Your task to perform on an android device: delete browsing data in the chrome app Image 0: 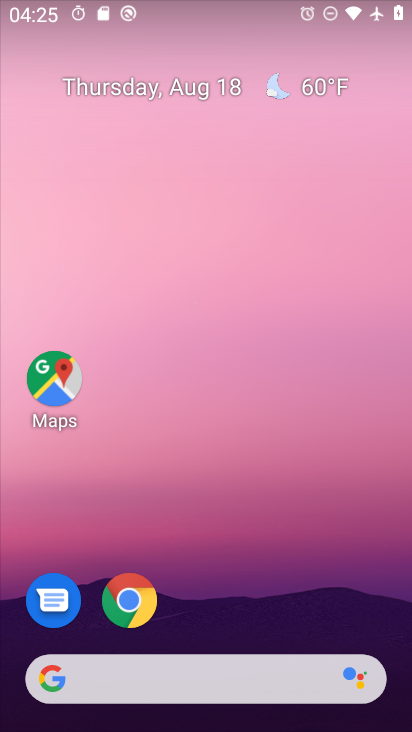
Step 0: press home button
Your task to perform on an android device: delete browsing data in the chrome app Image 1: 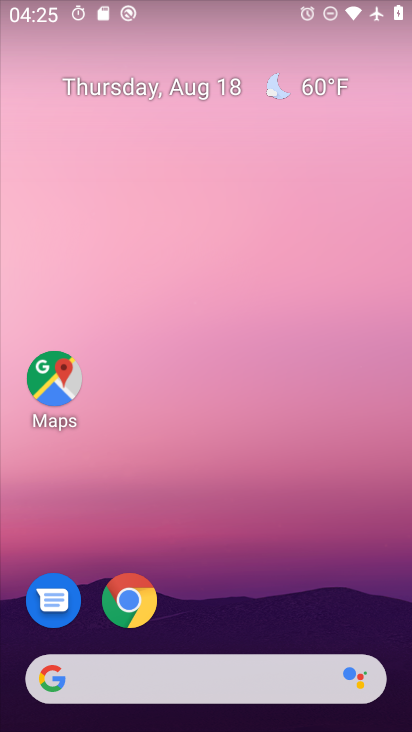
Step 1: click (122, 603)
Your task to perform on an android device: delete browsing data in the chrome app Image 2: 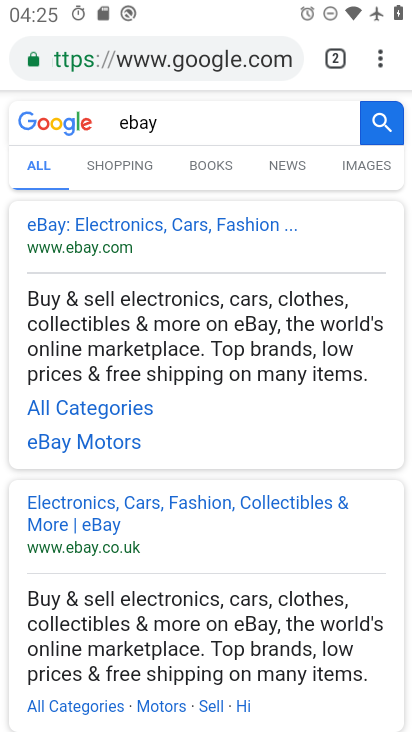
Step 2: drag from (389, 54) to (189, 647)
Your task to perform on an android device: delete browsing data in the chrome app Image 3: 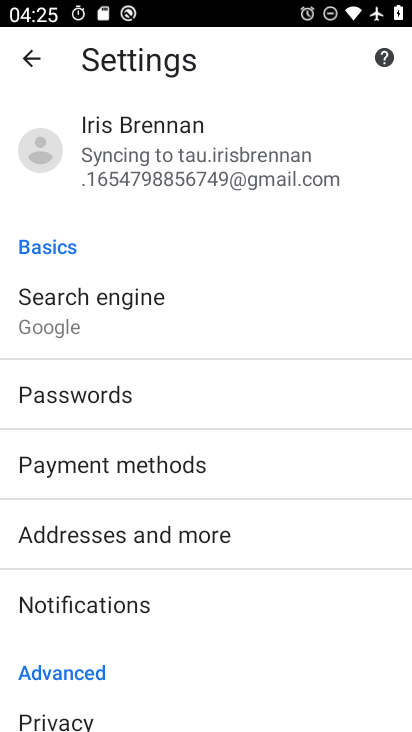
Step 3: drag from (230, 647) to (233, 186)
Your task to perform on an android device: delete browsing data in the chrome app Image 4: 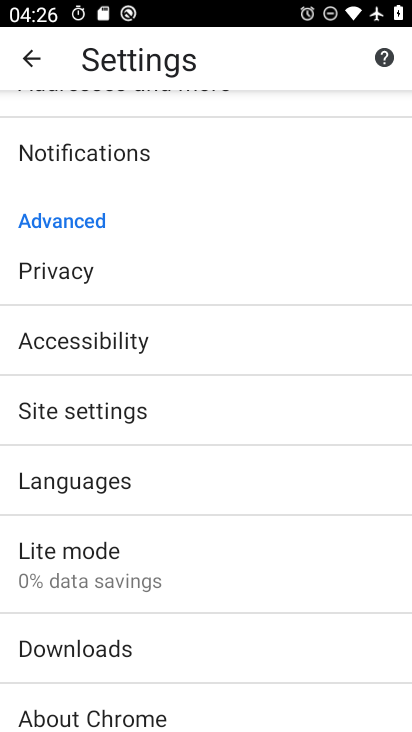
Step 4: click (61, 278)
Your task to perform on an android device: delete browsing data in the chrome app Image 5: 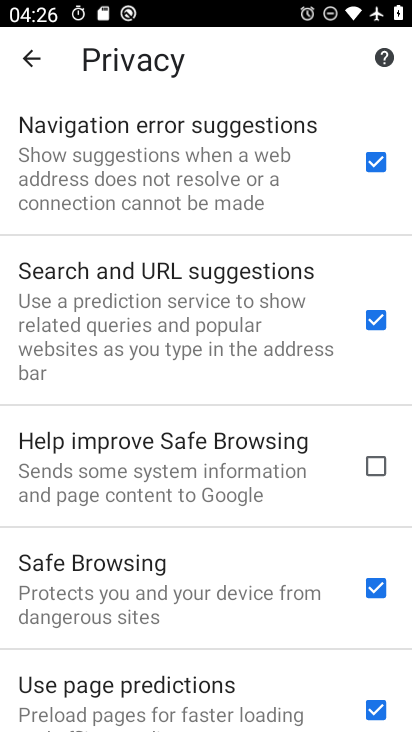
Step 5: drag from (299, 676) to (269, 62)
Your task to perform on an android device: delete browsing data in the chrome app Image 6: 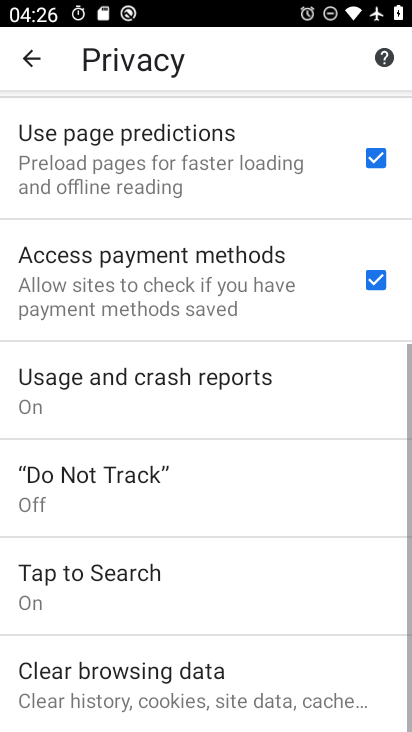
Step 6: click (71, 667)
Your task to perform on an android device: delete browsing data in the chrome app Image 7: 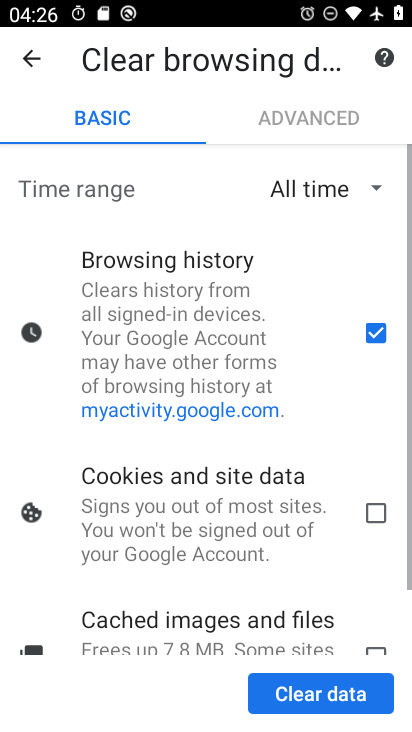
Step 7: click (376, 519)
Your task to perform on an android device: delete browsing data in the chrome app Image 8: 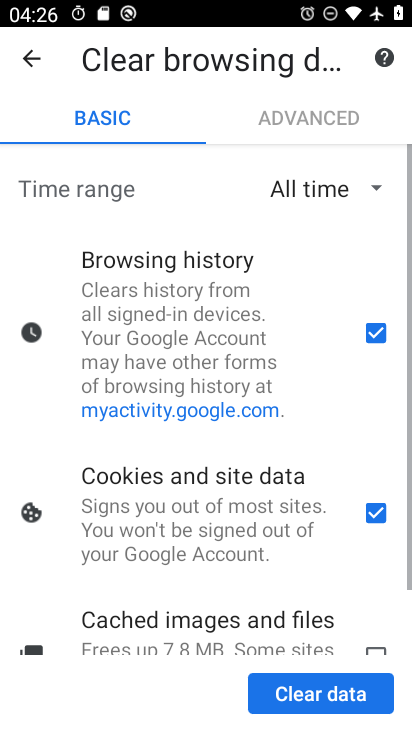
Step 8: click (373, 644)
Your task to perform on an android device: delete browsing data in the chrome app Image 9: 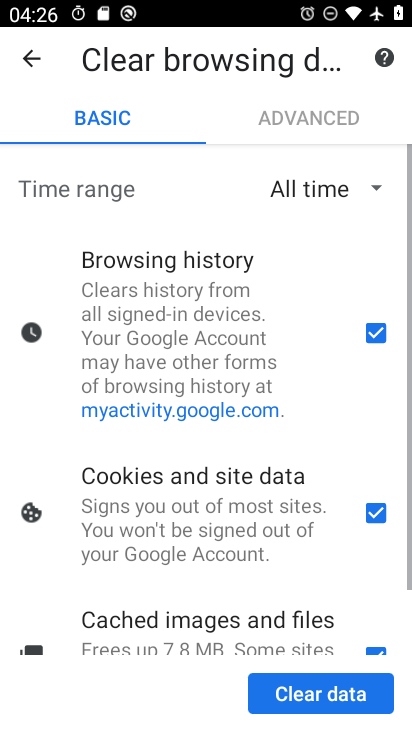
Step 9: click (327, 697)
Your task to perform on an android device: delete browsing data in the chrome app Image 10: 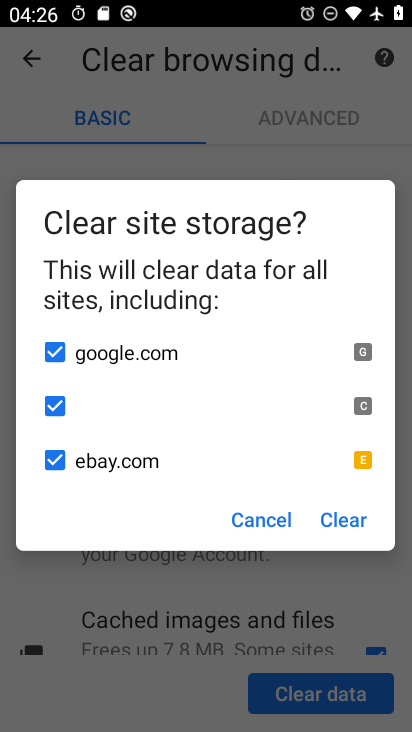
Step 10: click (341, 522)
Your task to perform on an android device: delete browsing data in the chrome app Image 11: 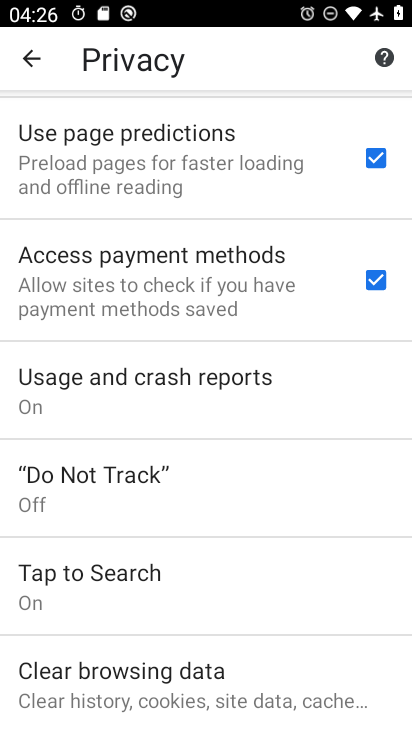
Step 11: task complete